Your task to perform on an android device: What is the news today? Image 0: 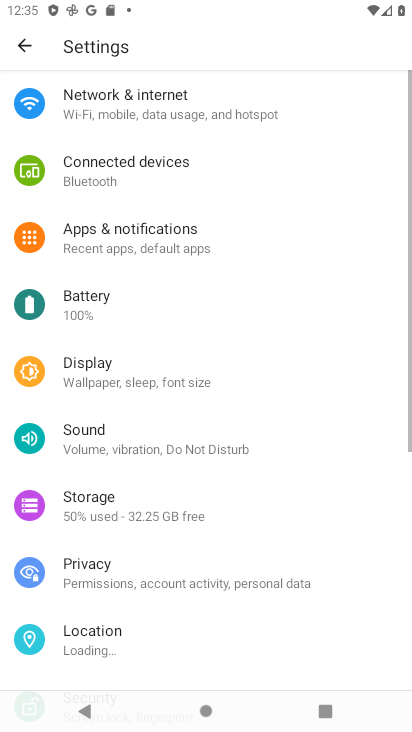
Step 0: press home button
Your task to perform on an android device: What is the news today? Image 1: 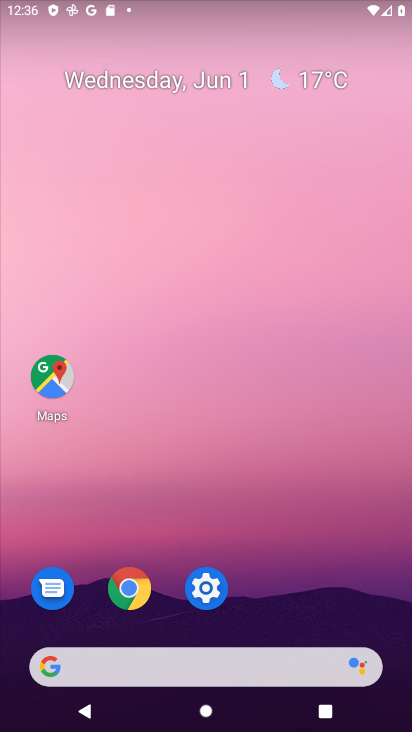
Step 1: click (166, 665)
Your task to perform on an android device: What is the news today? Image 2: 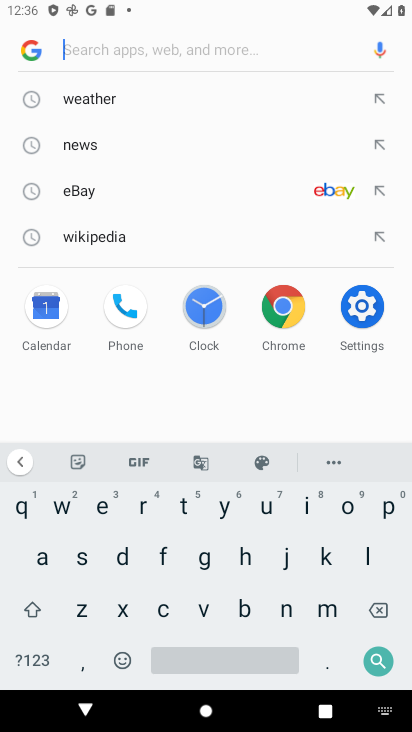
Step 2: click (114, 146)
Your task to perform on an android device: What is the news today? Image 3: 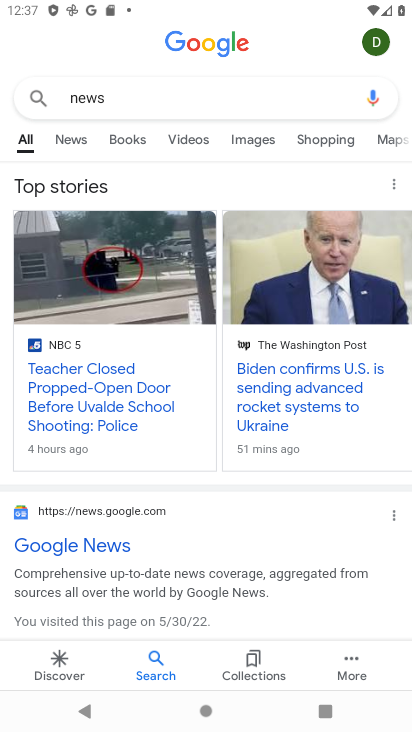
Step 3: task complete